Your task to perform on an android device: Open network settings Image 0: 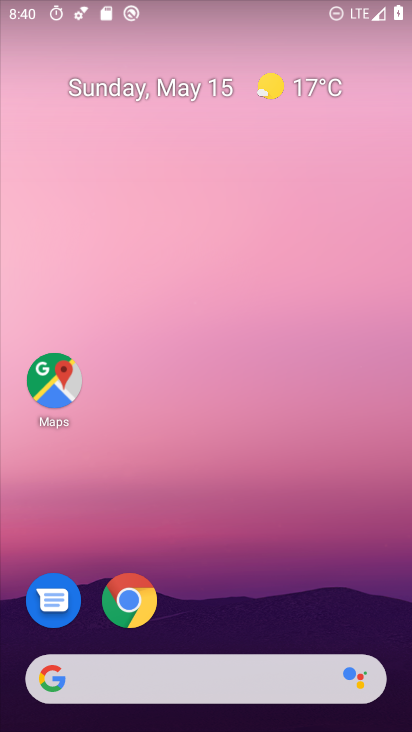
Step 0: drag from (245, 604) to (152, 120)
Your task to perform on an android device: Open network settings Image 1: 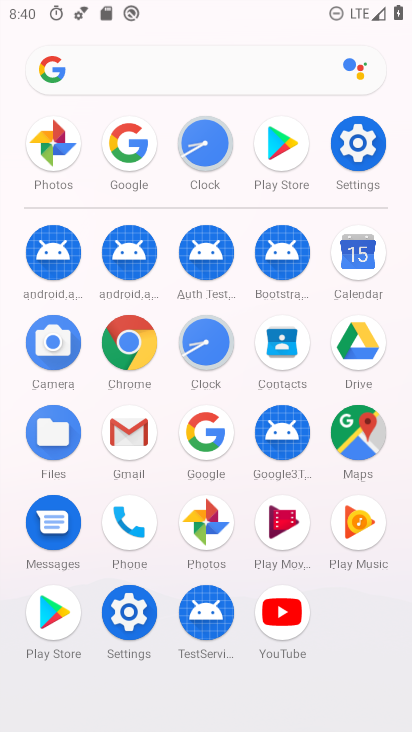
Step 1: click (356, 143)
Your task to perform on an android device: Open network settings Image 2: 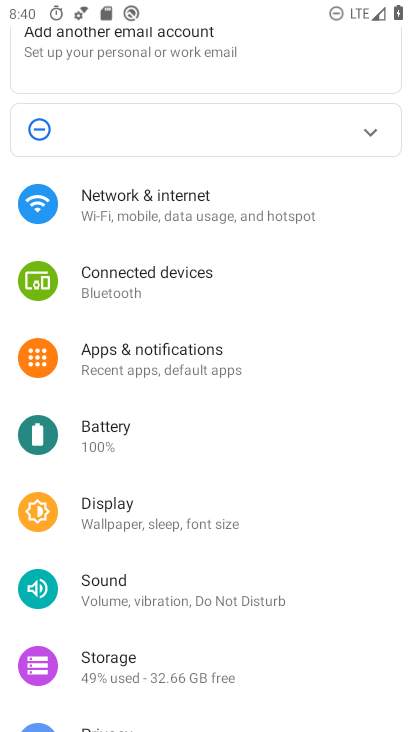
Step 2: click (145, 212)
Your task to perform on an android device: Open network settings Image 3: 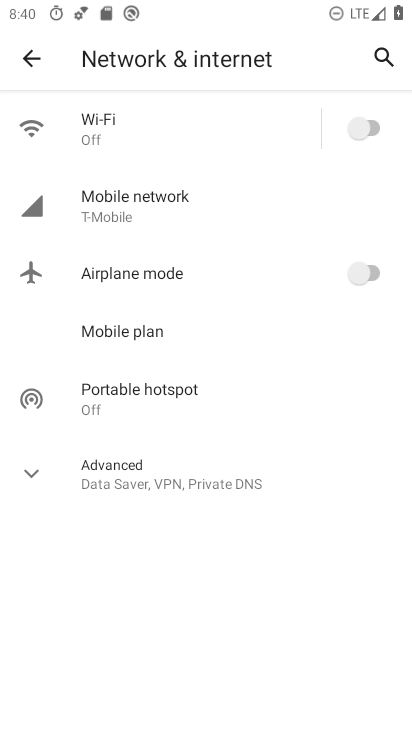
Step 3: task complete